Your task to perform on an android device: toggle javascript in the chrome app Image 0: 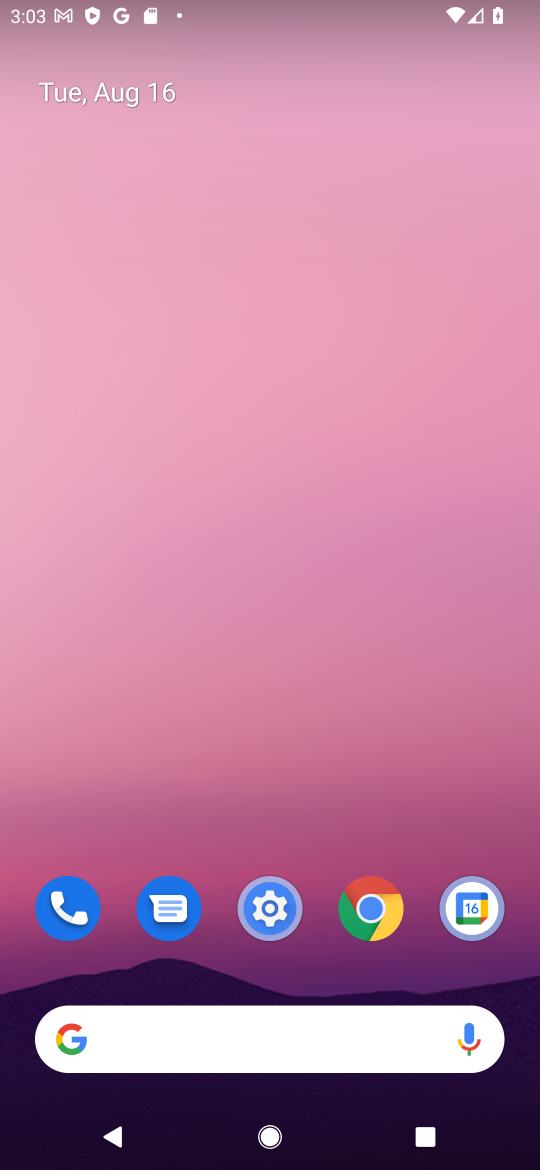
Step 0: click (344, 911)
Your task to perform on an android device: toggle javascript in the chrome app Image 1: 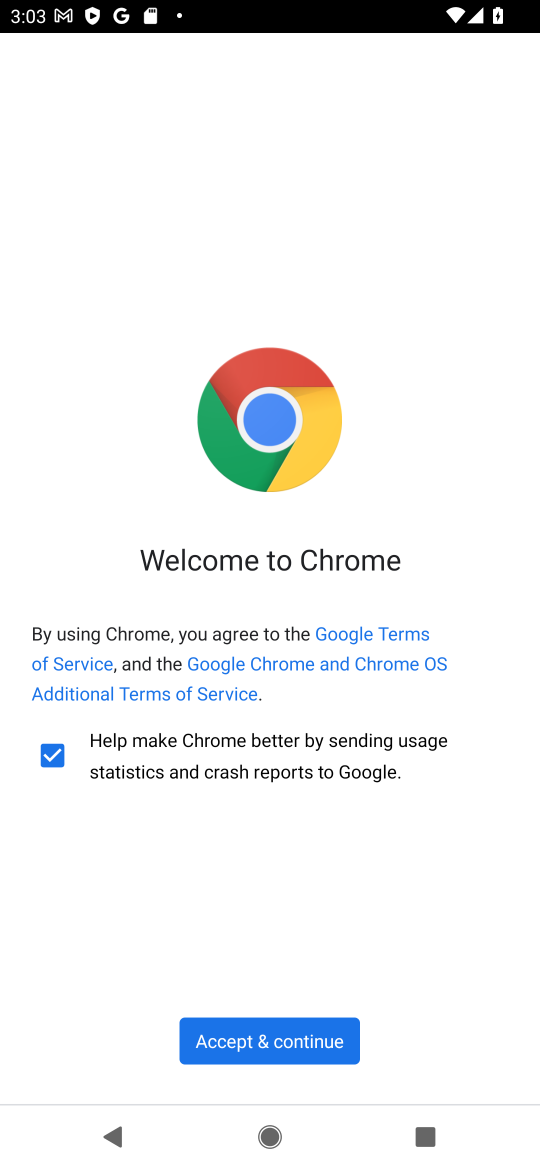
Step 1: click (236, 1042)
Your task to perform on an android device: toggle javascript in the chrome app Image 2: 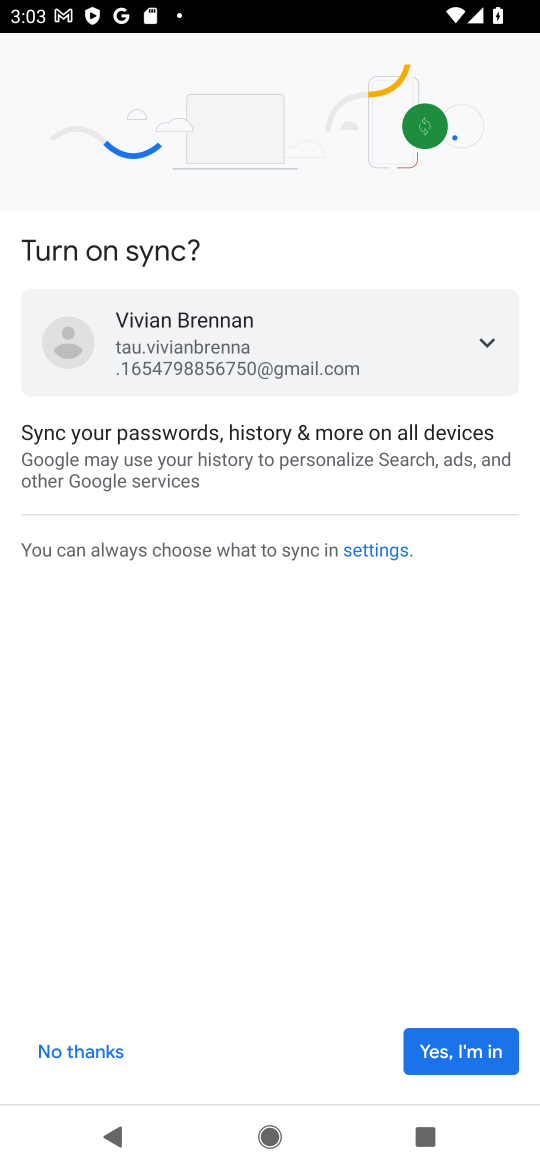
Step 2: click (408, 1060)
Your task to perform on an android device: toggle javascript in the chrome app Image 3: 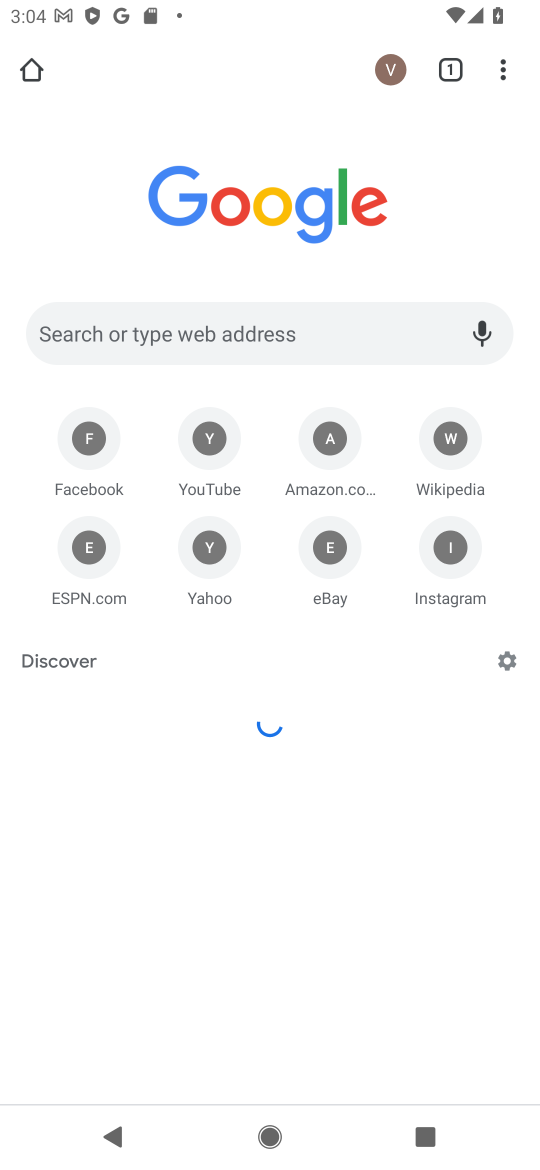
Step 3: drag from (502, 68) to (289, 626)
Your task to perform on an android device: toggle javascript in the chrome app Image 4: 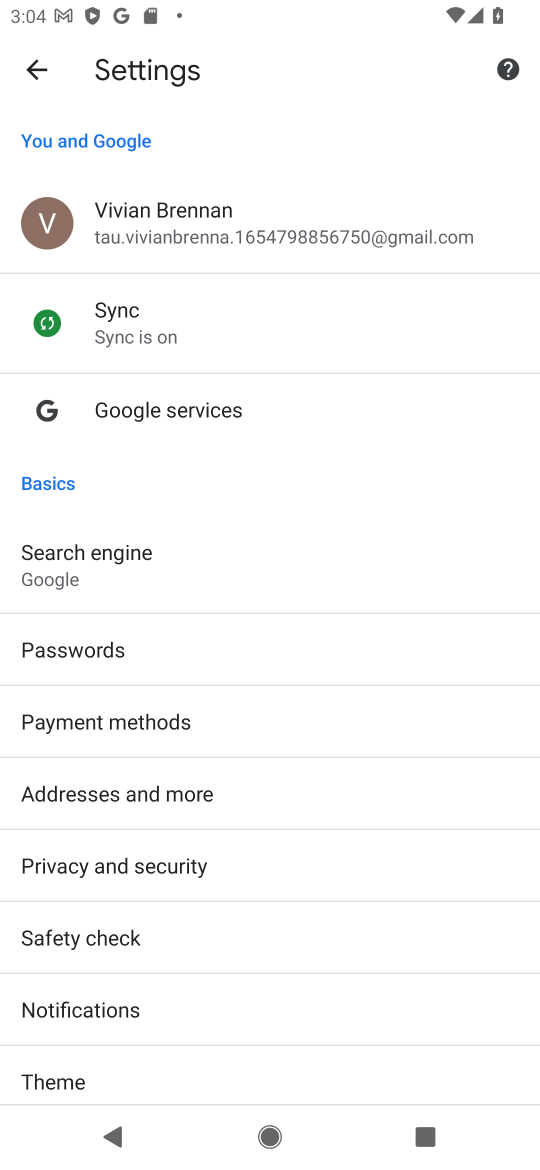
Step 4: drag from (199, 976) to (343, 244)
Your task to perform on an android device: toggle javascript in the chrome app Image 5: 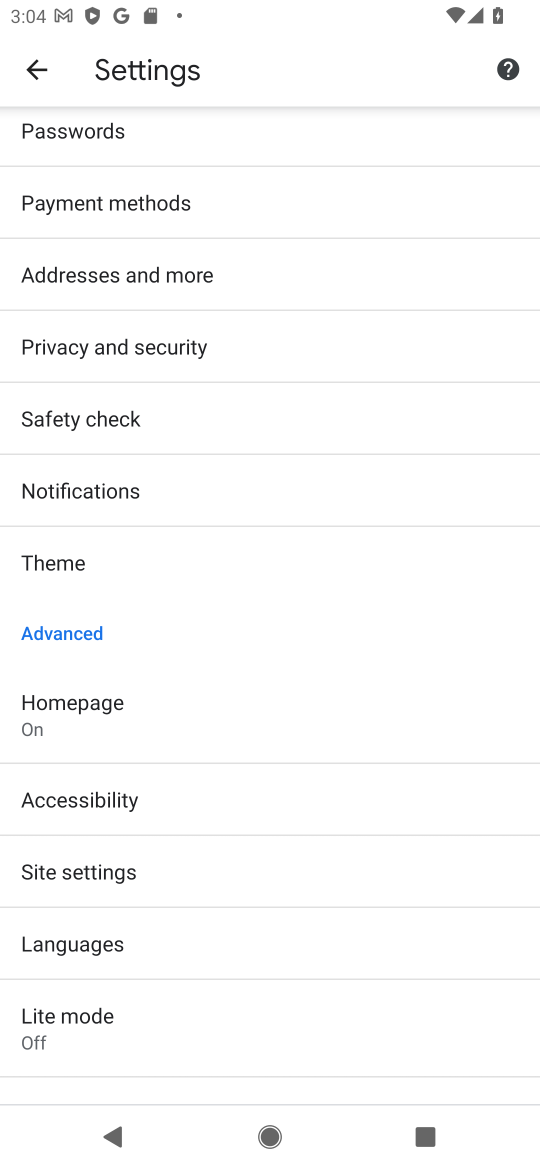
Step 5: drag from (284, 994) to (399, 612)
Your task to perform on an android device: toggle javascript in the chrome app Image 6: 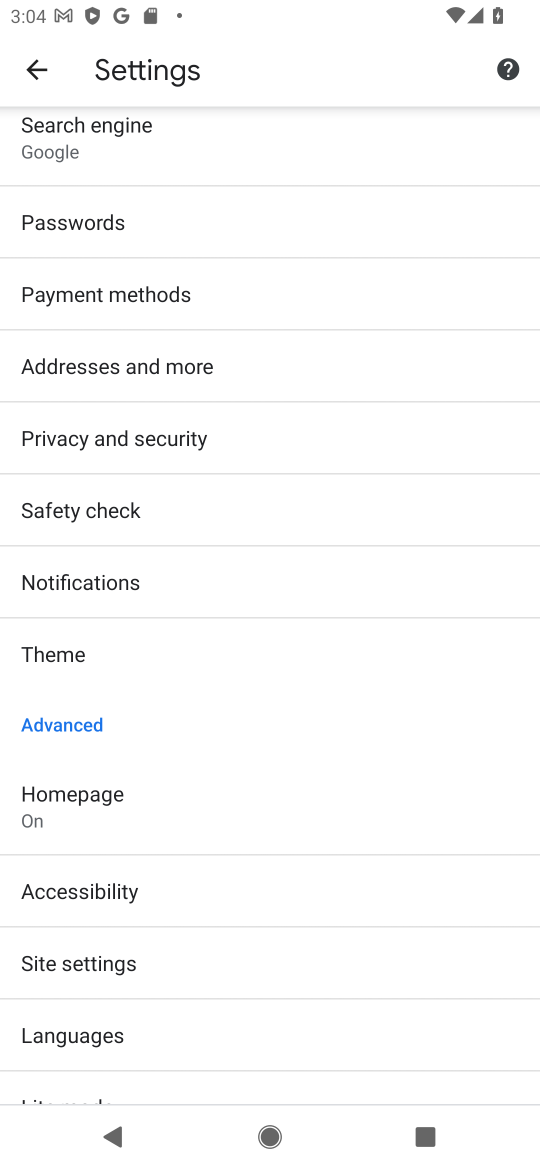
Step 6: click (100, 953)
Your task to perform on an android device: toggle javascript in the chrome app Image 7: 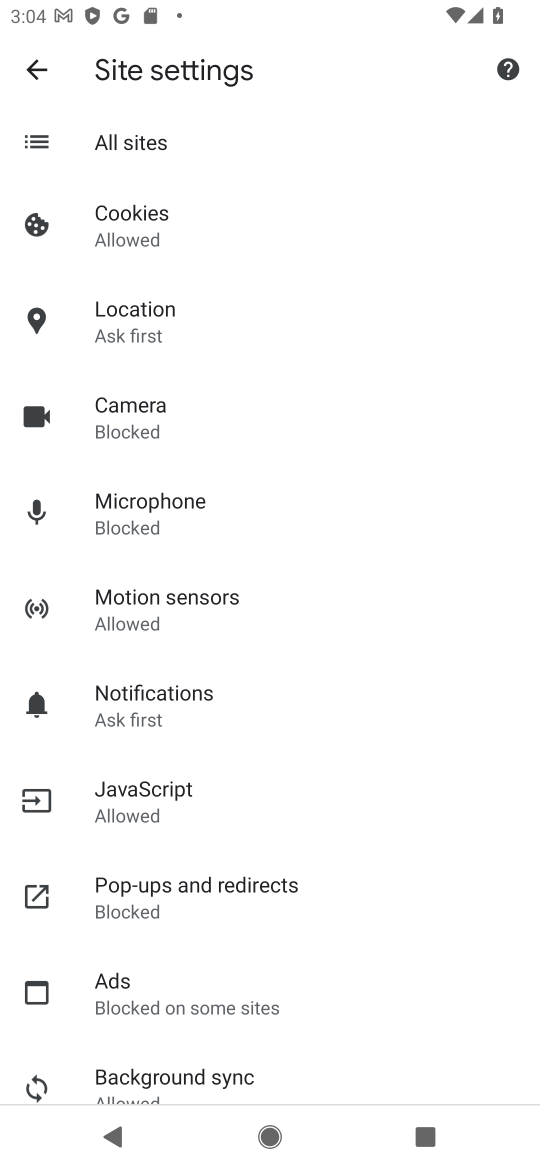
Step 7: click (187, 815)
Your task to perform on an android device: toggle javascript in the chrome app Image 8: 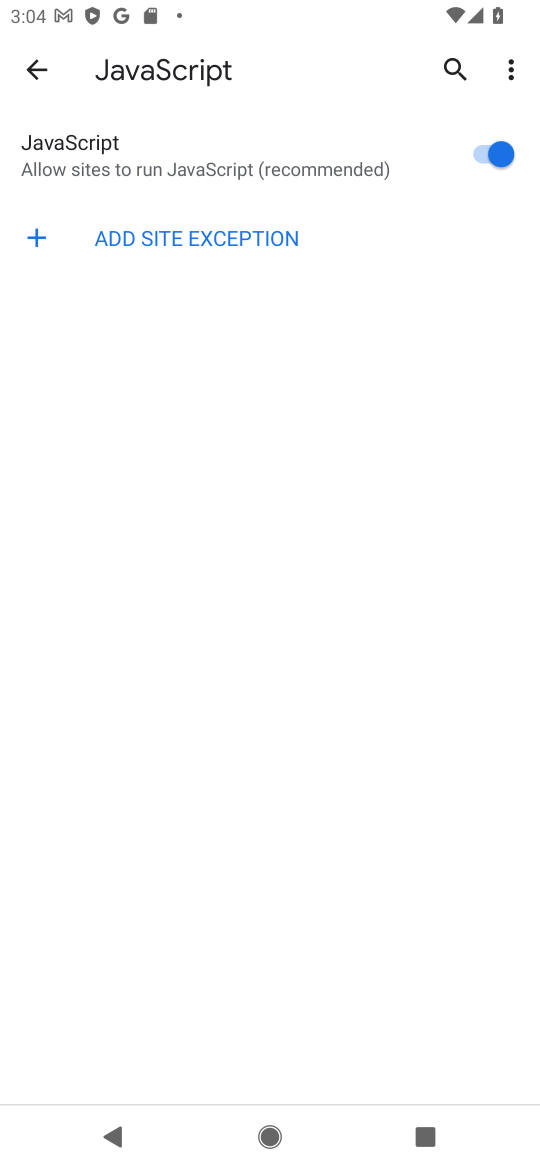
Step 8: click (496, 159)
Your task to perform on an android device: toggle javascript in the chrome app Image 9: 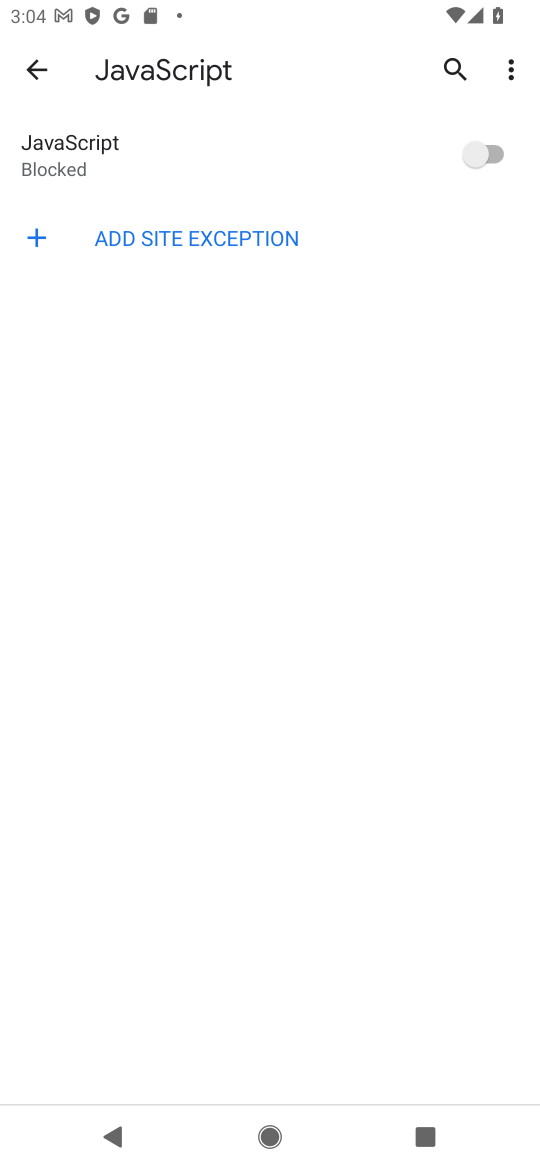
Step 9: task complete